Your task to perform on an android device: choose inbox layout in the gmail app Image 0: 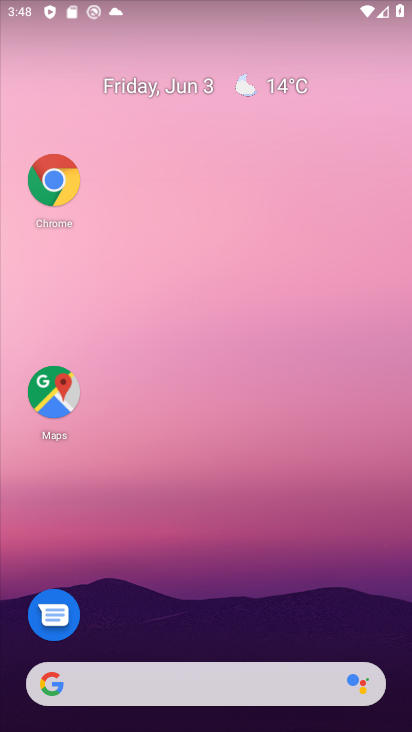
Step 0: drag from (111, 729) to (220, 237)
Your task to perform on an android device: choose inbox layout in the gmail app Image 1: 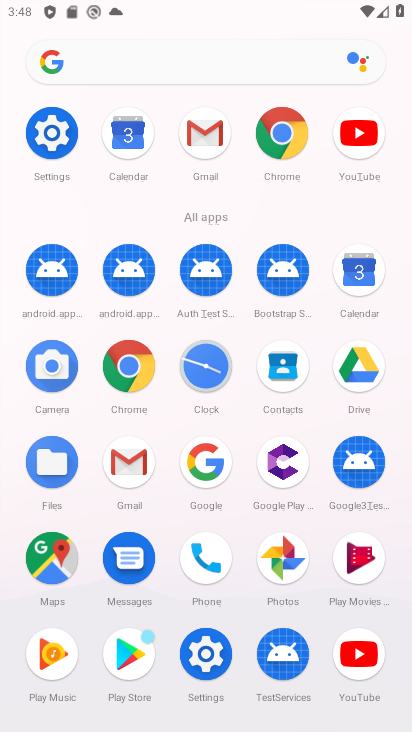
Step 1: click (190, 128)
Your task to perform on an android device: choose inbox layout in the gmail app Image 2: 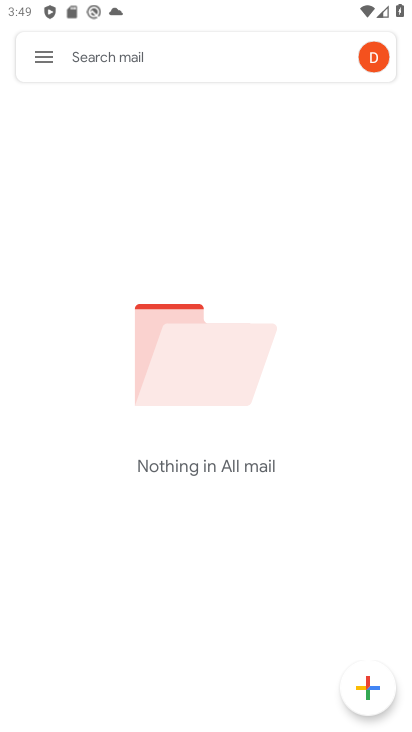
Step 2: click (39, 61)
Your task to perform on an android device: choose inbox layout in the gmail app Image 3: 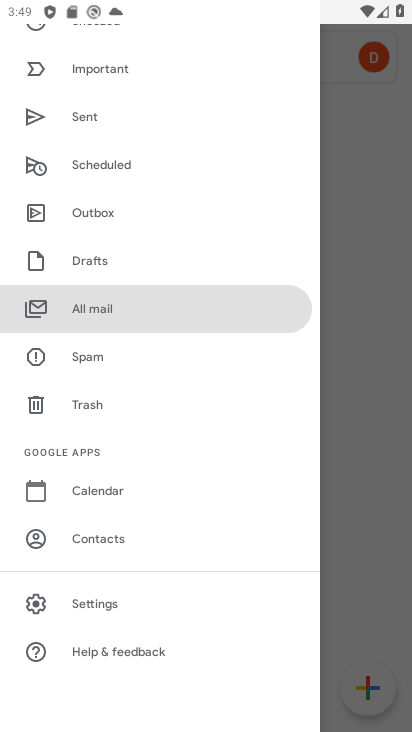
Step 3: click (114, 620)
Your task to perform on an android device: choose inbox layout in the gmail app Image 4: 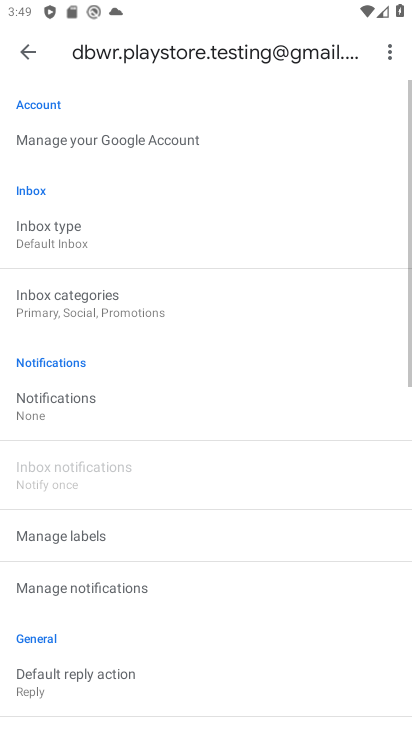
Step 4: click (133, 248)
Your task to perform on an android device: choose inbox layout in the gmail app Image 5: 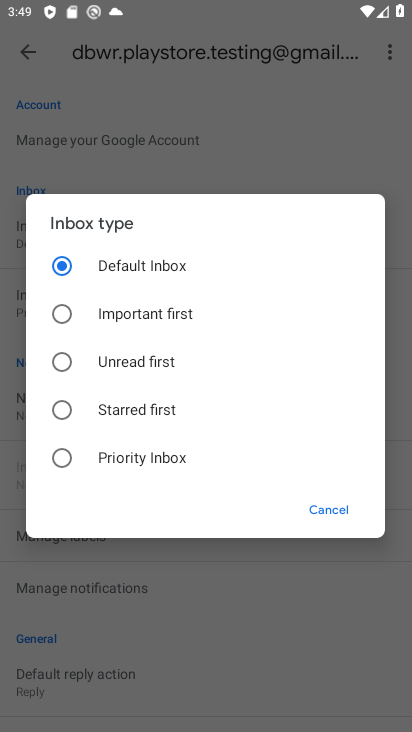
Step 5: task complete